Your task to perform on an android device: manage bookmarks in the chrome app Image 0: 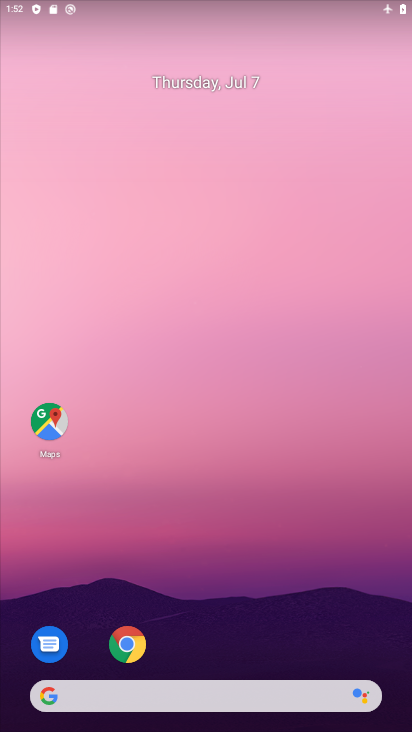
Step 0: click (137, 649)
Your task to perform on an android device: manage bookmarks in the chrome app Image 1: 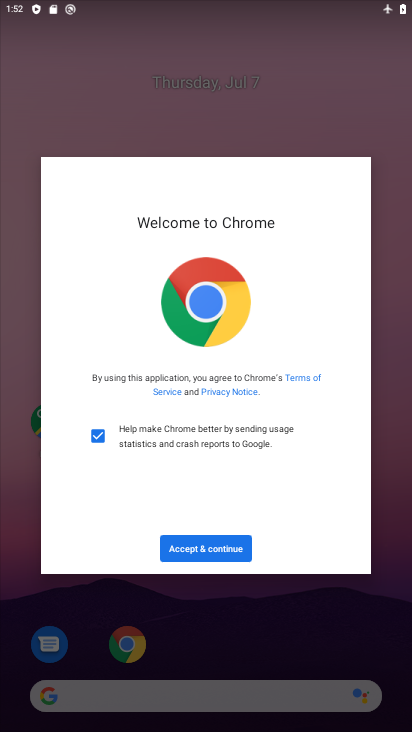
Step 1: click (217, 552)
Your task to perform on an android device: manage bookmarks in the chrome app Image 2: 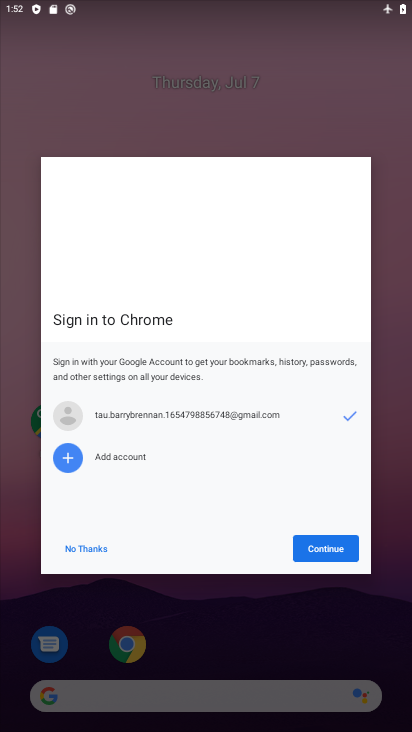
Step 2: click (311, 554)
Your task to perform on an android device: manage bookmarks in the chrome app Image 3: 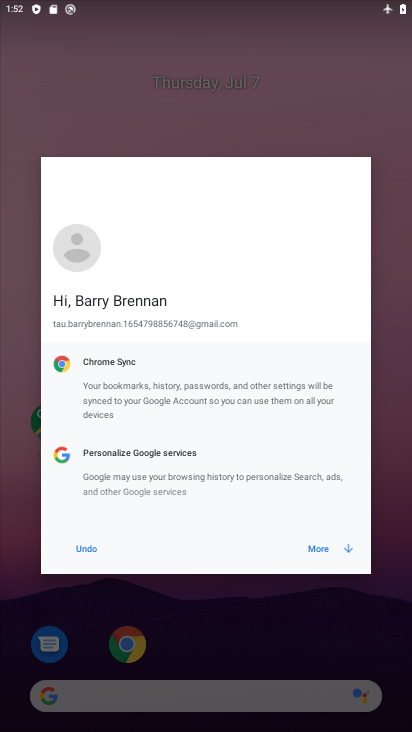
Step 3: click (311, 554)
Your task to perform on an android device: manage bookmarks in the chrome app Image 4: 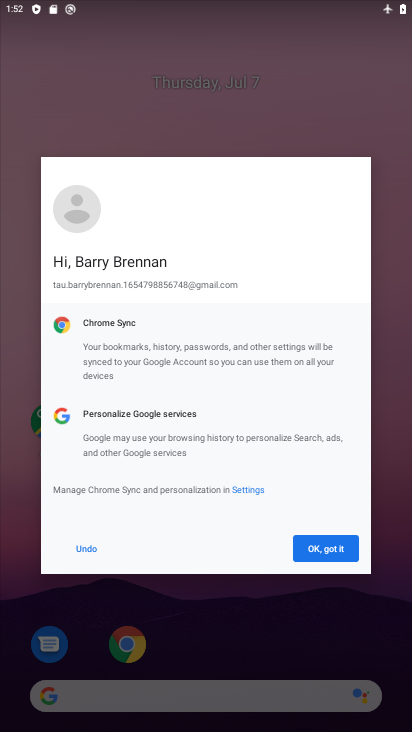
Step 4: click (312, 554)
Your task to perform on an android device: manage bookmarks in the chrome app Image 5: 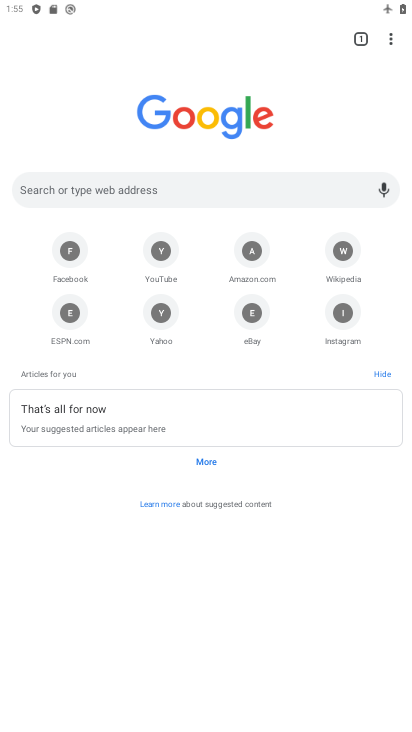
Step 5: click (391, 44)
Your task to perform on an android device: manage bookmarks in the chrome app Image 6: 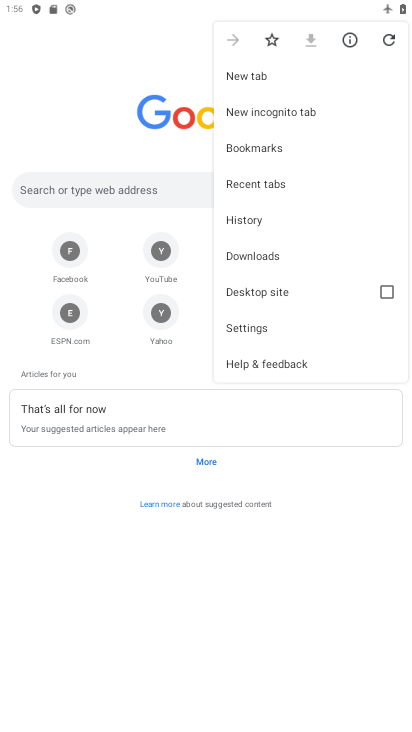
Step 6: click (84, 94)
Your task to perform on an android device: manage bookmarks in the chrome app Image 7: 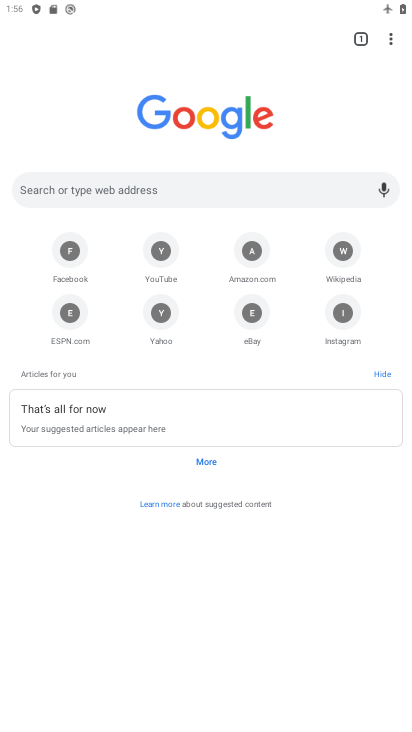
Step 7: click (391, 37)
Your task to perform on an android device: manage bookmarks in the chrome app Image 8: 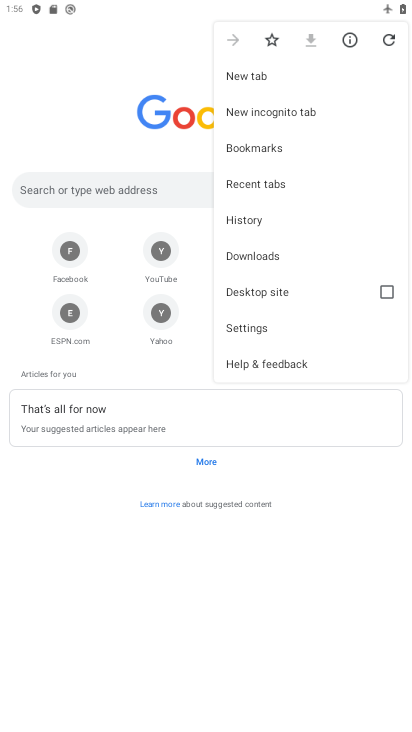
Step 8: click (264, 335)
Your task to perform on an android device: manage bookmarks in the chrome app Image 9: 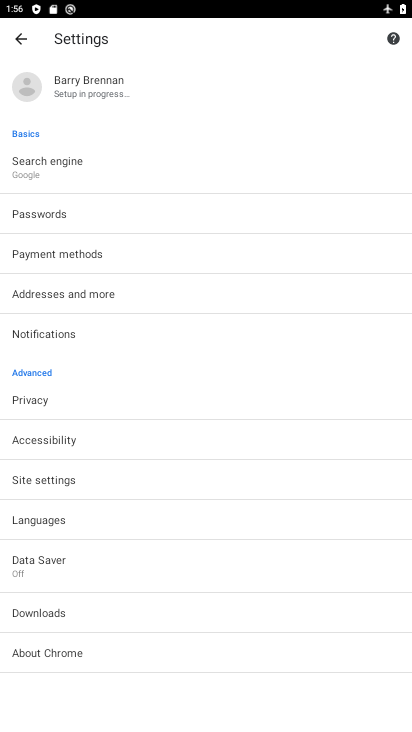
Step 9: click (22, 38)
Your task to perform on an android device: manage bookmarks in the chrome app Image 10: 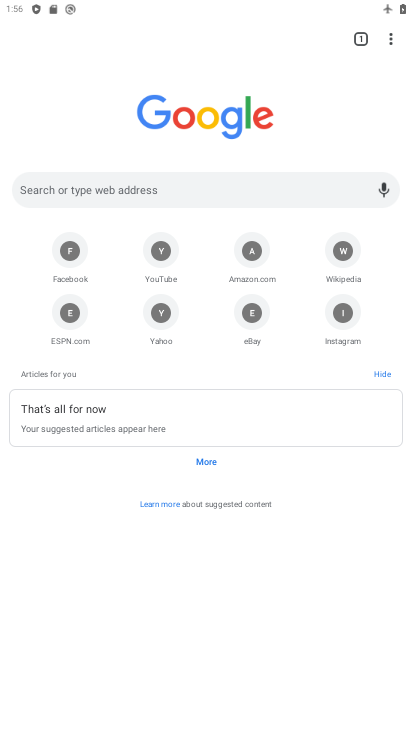
Step 10: click (389, 41)
Your task to perform on an android device: manage bookmarks in the chrome app Image 11: 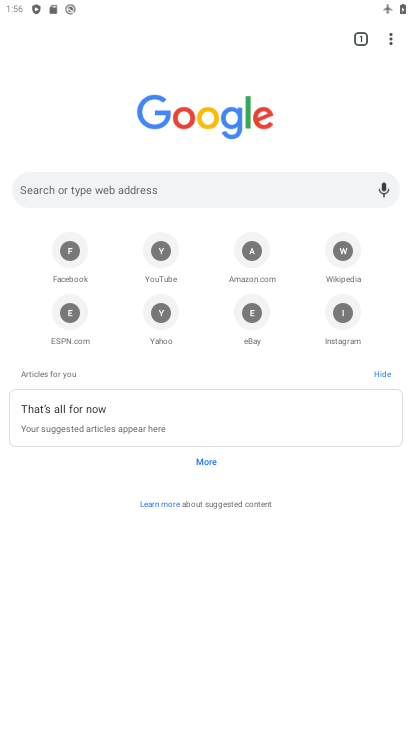
Step 11: click (393, 42)
Your task to perform on an android device: manage bookmarks in the chrome app Image 12: 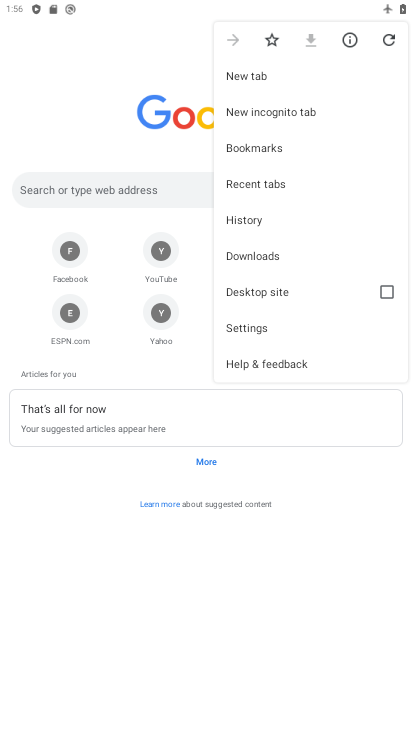
Step 12: click (95, 110)
Your task to perform on an android device: manage bookmarks in the chrome app Image 13: 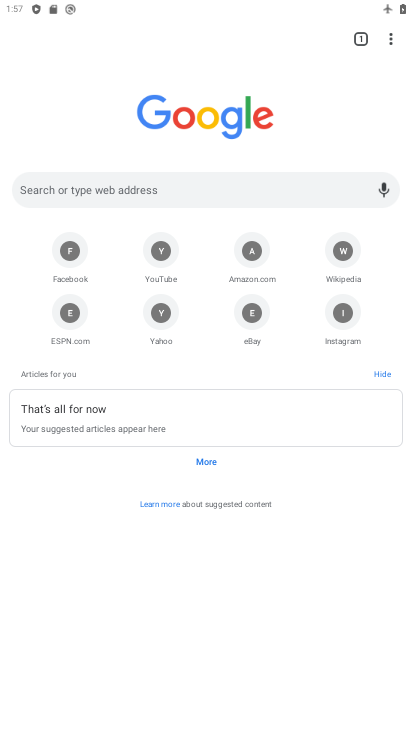
Step 13: click (391, 44)
Your task to perform on an android device: manage bookmarks in the chrome app Image 14: 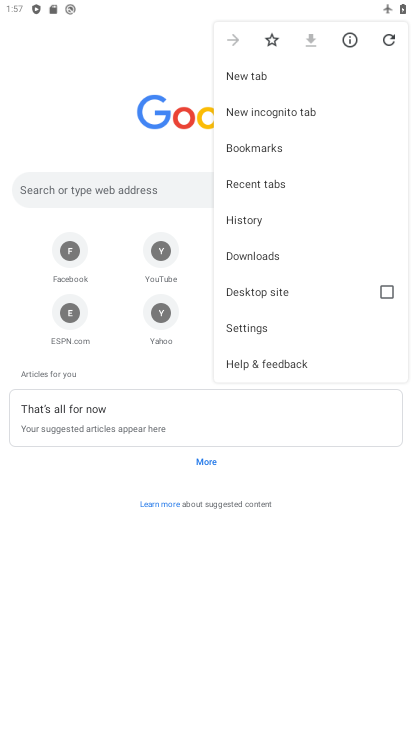
Step 14: click (273, 155)
Your task to perform on an android device: manage bookmarks in the chrome app Image 15: 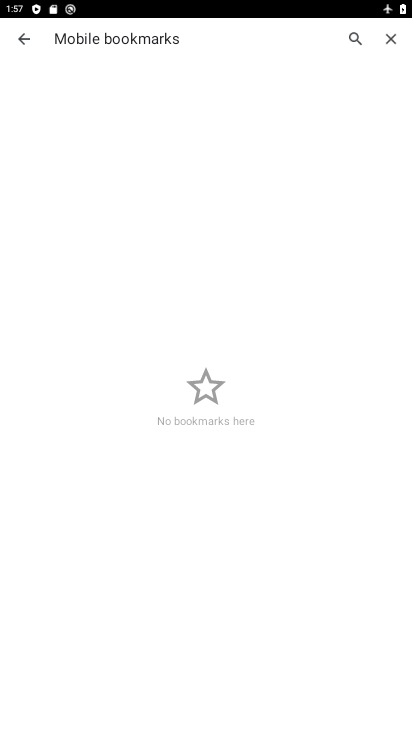
Step 15: task complete